Your task to perform on an android device: What's the weather today? Image 0: 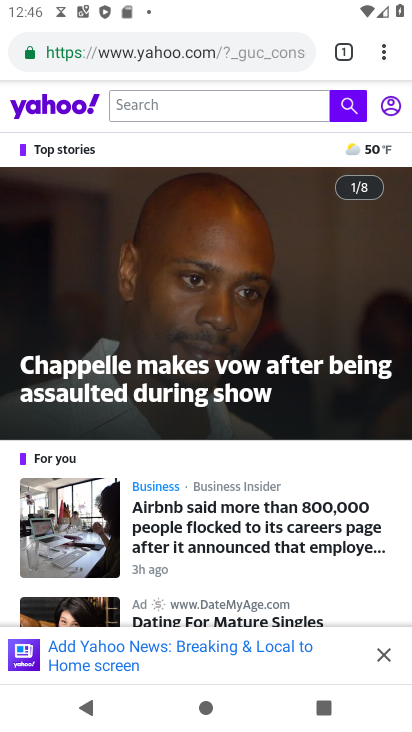
Step 0: press home button
Your task to perform on an android device: What's the weather today? Image 1: 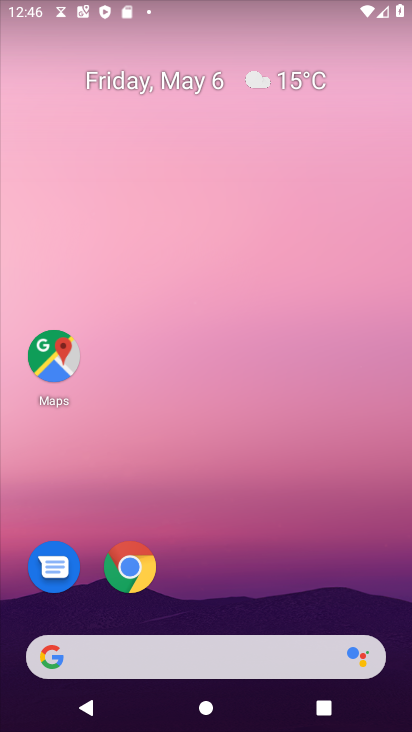
Step 1: click (276, 81)
Your task to perform on an android device: What's the weather today? Image 2: 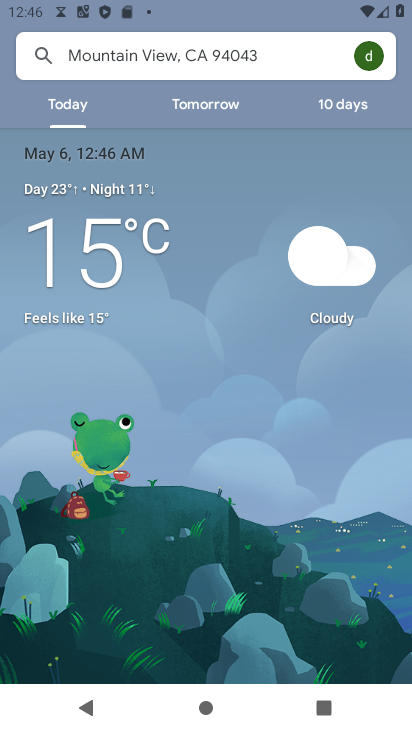
Step 2: task complete